Your task to perform on an android device: Open the phone app and click the voicemail tab. Image 0: 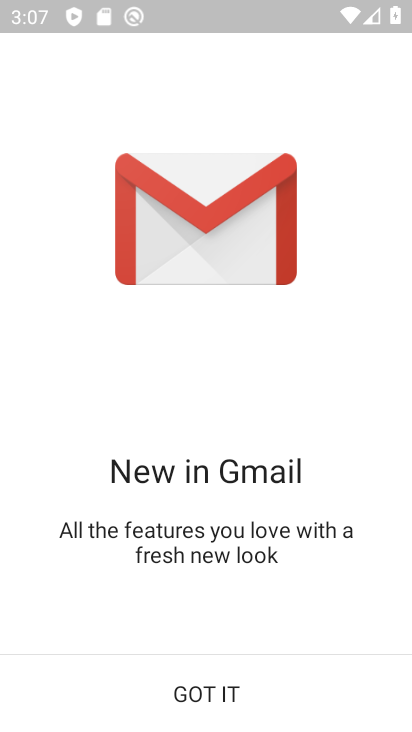
Step 0: press home button
Your task to perform on an android device: Open the phone app and click the voicemail tab. Image 1: 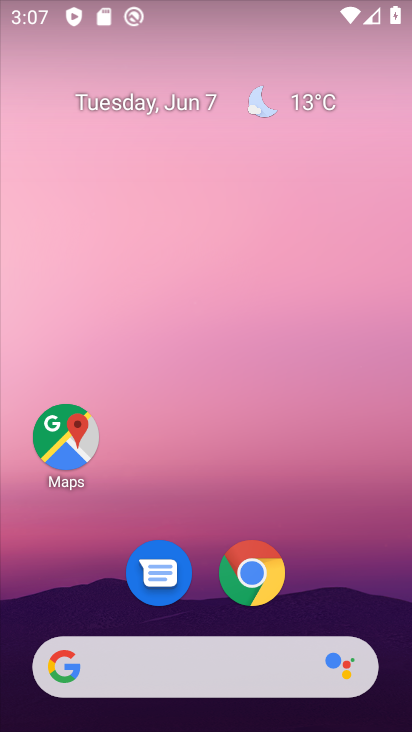
Step 1: drag from (366, 612) to (256, 57)
Your task to perform on an android device: Open the phone app and click the voicemail tab. Image 2: 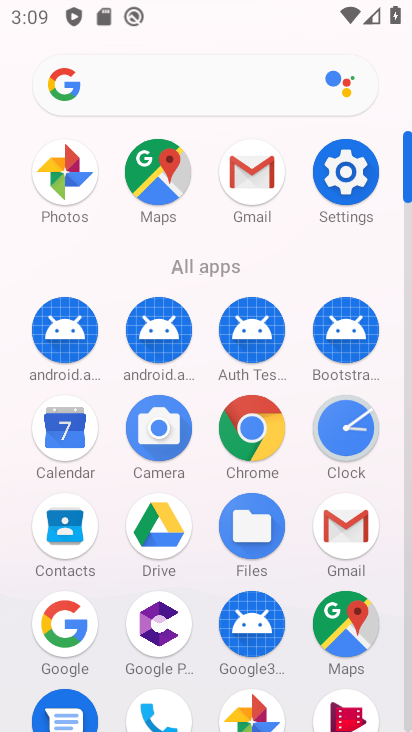
Step 2: click (164, 695)
Your task to perform on an android device: Open the phone app and click the voicemail tab. Image 3: 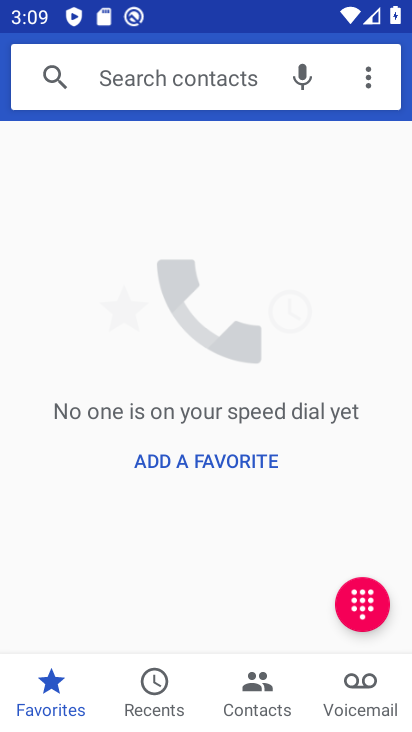
Step 3: click (365, 721)
Your task to perform on an android device: Open the phone app and click the voicemail tab. Image 4: 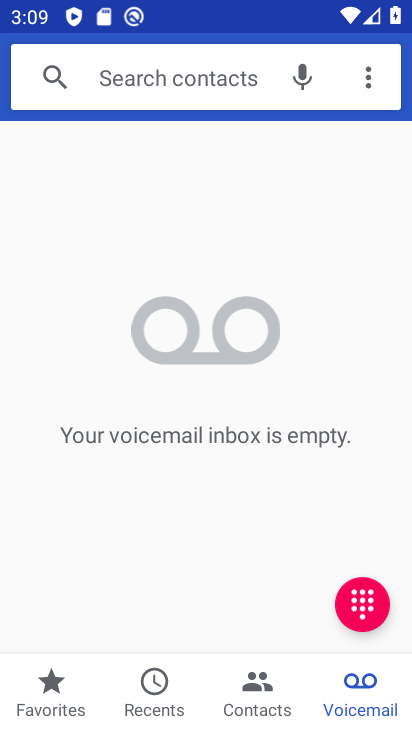
Step 4: task complete